Your task to perform on an android device: Open the calendar app, open the side menu, and click the "Day" option Image 0: 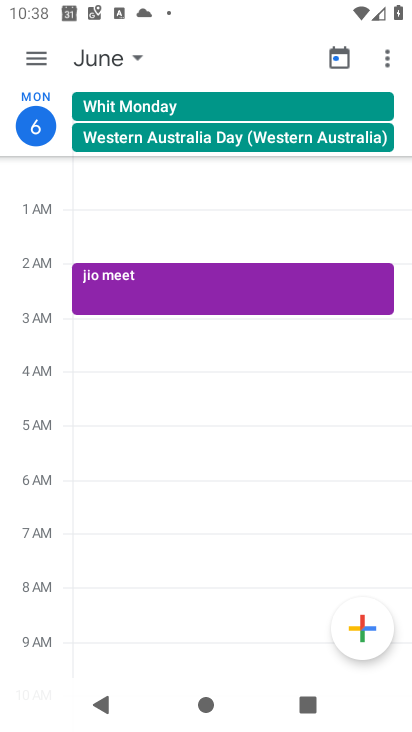
Step 0: click (28, 52)
Your task to perform on an android device: Open the calendar app, open the side menu, and click the "Day" option Image 1: 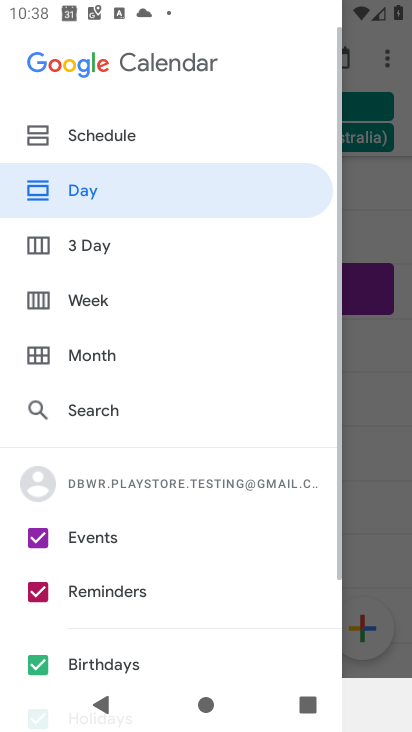
Step 1: click (73, 192)
Your task to perform on an android device: Open the calendar app, open the side menu, and click the "Day" option Image 2: 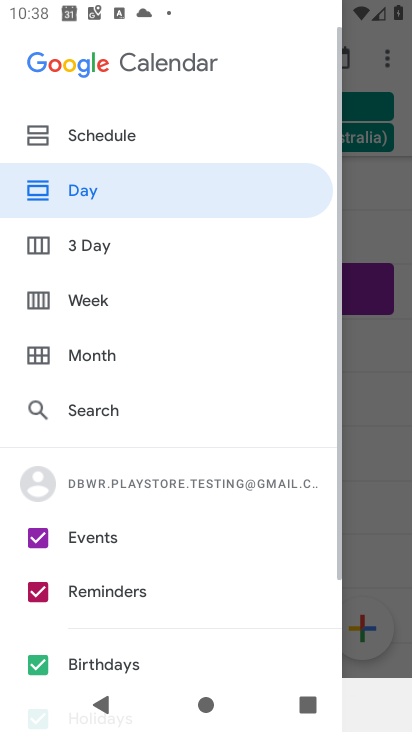
Step 2: click (129, 177)
Your task to perform on an android device: Open the calendar app, open the side menu, and click the "Day" option Image 3: 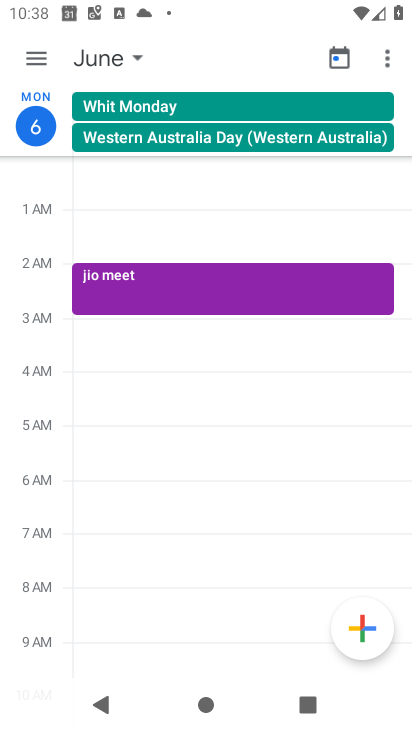
Step 3: task complete